Your task to perform on an android device: manage bookmarks in the chrome app Image 0: 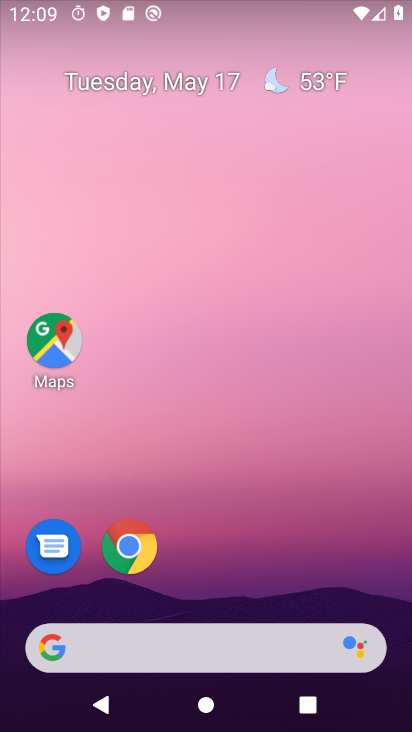
Step 0: drag from (156, 649) to (274, 273)
Your task to perform on an android device: manage bookmarks in the chrome app Image 1: 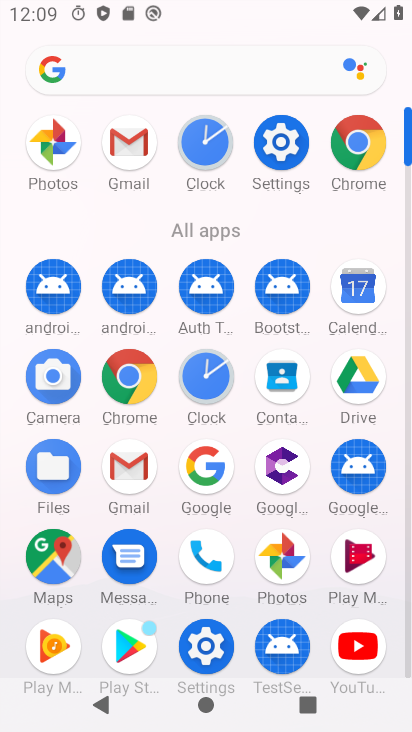
Step 1: click (348, 155)
Your task to perform on an android device: manage bookmarks in the chrome app Image 2: 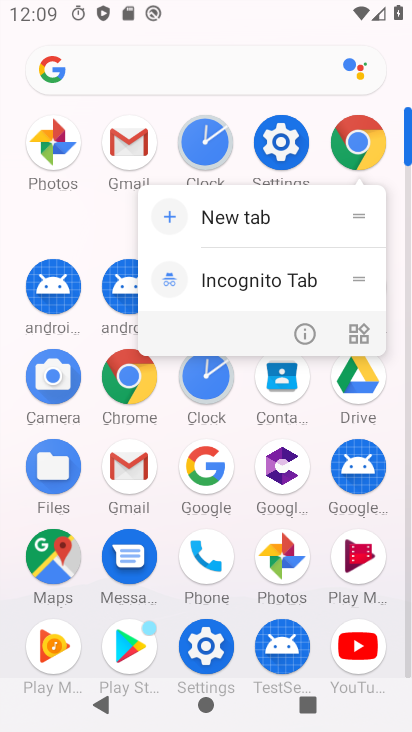
Step 2: click (351, 149)
Your task to perform on an android device: manage bookmarks in the chrome app Image 3: 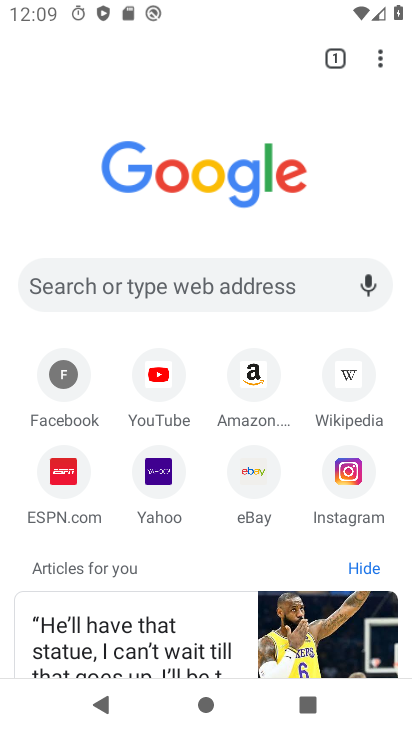
Step 3: task complete